Your task to perform on an android device: open sync settings in chrome Image 0: 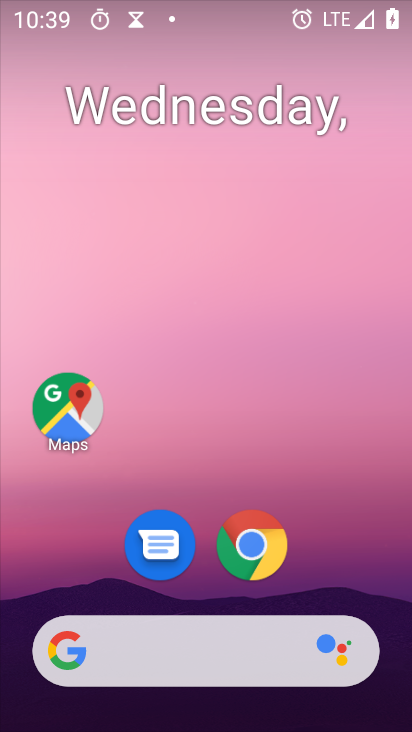
Step 0: press home button
Your task to perform on an android device: open sync settings in chrome Image 1: 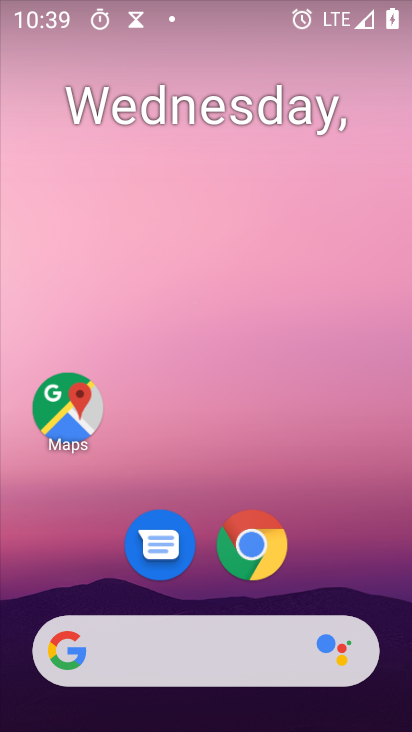
Step 1: click (243, 553)
Your task to perform on an android device: open sync settings in chrome Image 2: 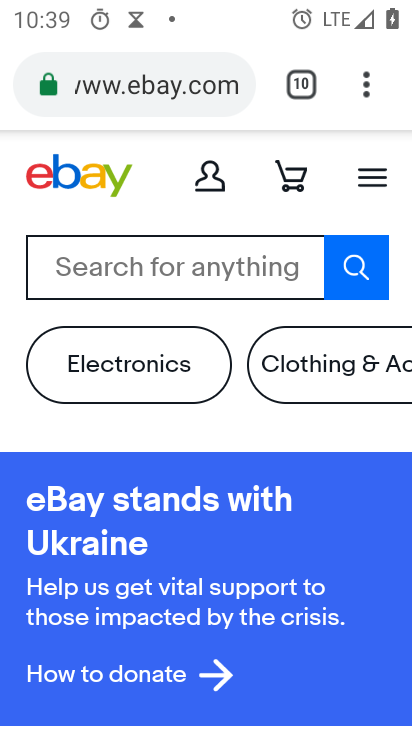
Step 2: drag from (370, 81) to (240, 600)
Your task to perform on an android device: open sync settings in chrome Image 3: 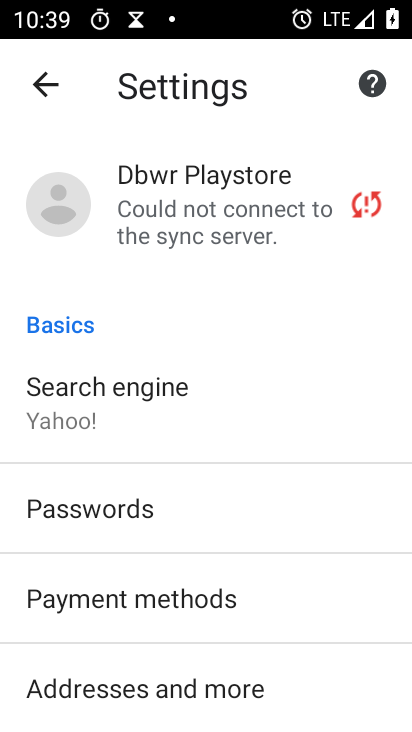
Step 3: click (208, 217)
Your task to perform on an android device: open sync settings in chrome Image 4: 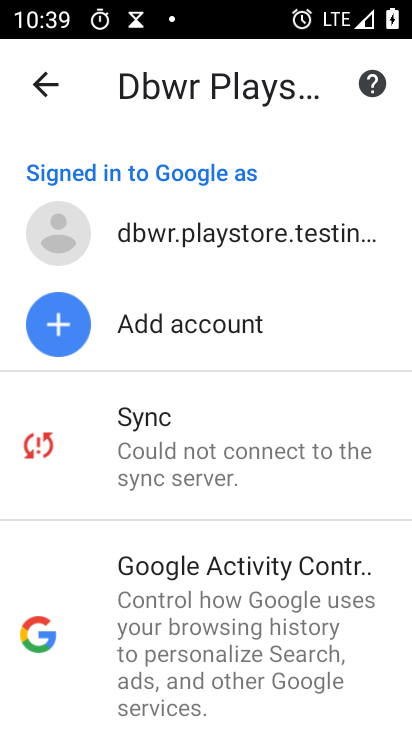
Step 4: click (192, 419)
Your task to perform on an android device: open sync settings in chrome Image 5: 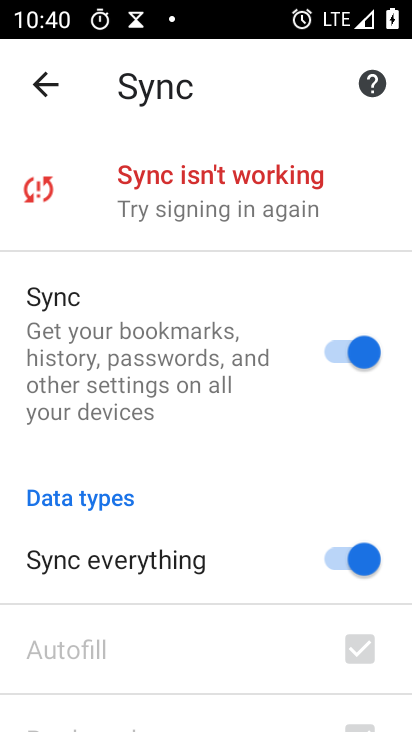
Step 5: task complete